Your task to perform on an android device: Go to Maps Image 0: 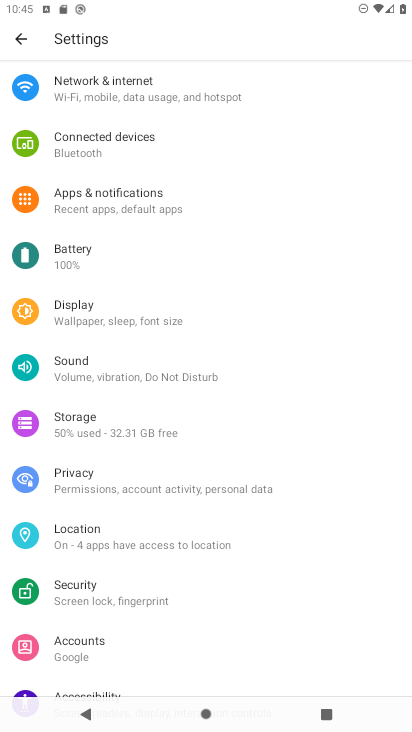
Step 0: press home button
Your task to perform on an android device: Go to Maps Image 1: 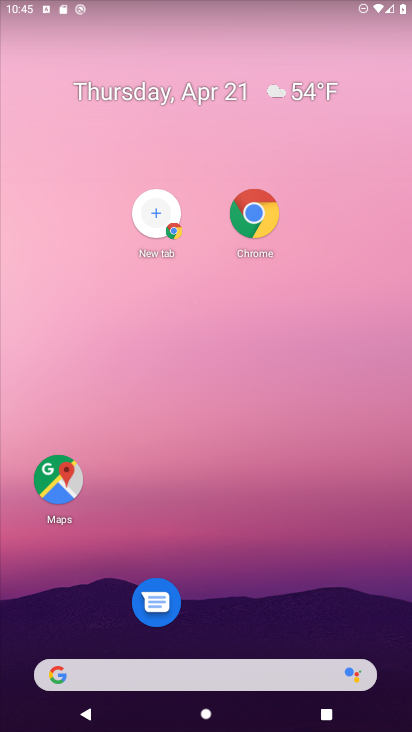
Step 1: click (61, 486)
Your task to perform on an android device: Go to Maps Image 2: 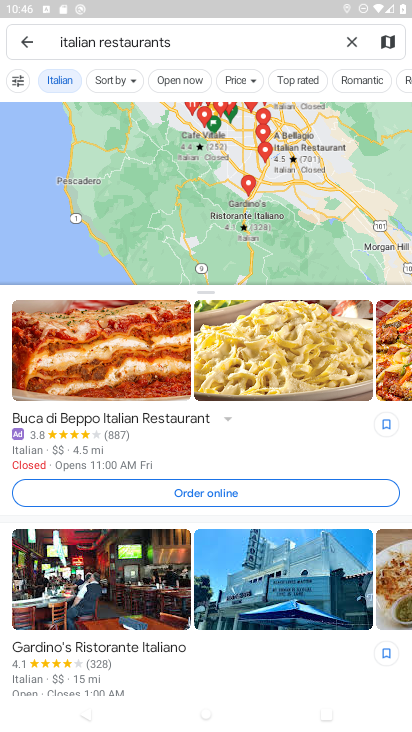
Step 2: task complete